Your task to perform on an android device: Open maps Image 0: 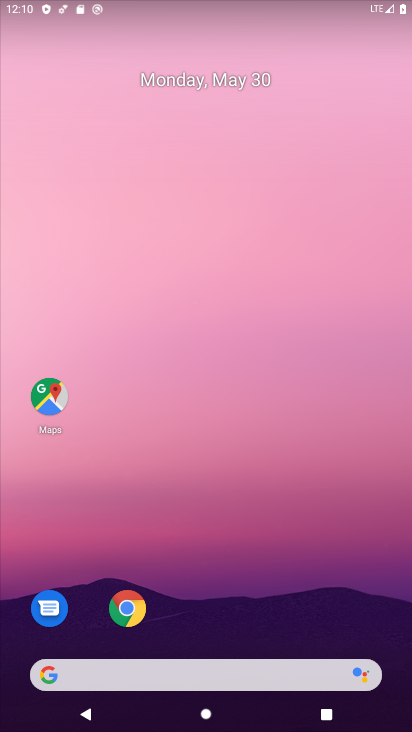
Step 0: click (53, 404)
Your task to perform on an android device: Open maps Image 1: 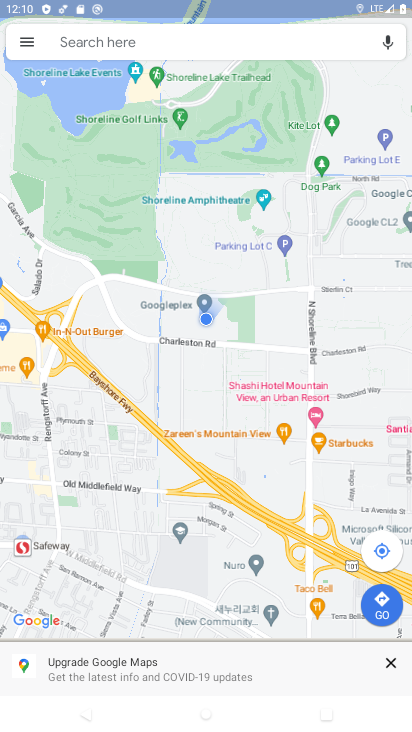
Step 1: task complete